Your task to perform on an android device: Show the shopping cart on costco. Add "razer blade" to the cart on costco Image 0: 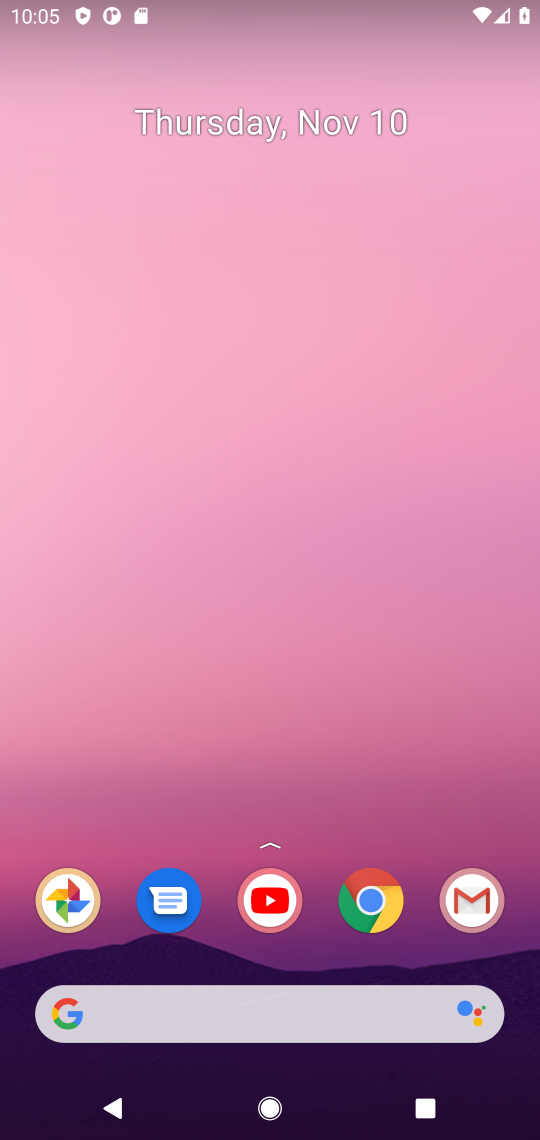
Step 0: click (369, 897)
Your task to perform on an android device: Show the shopping cart on costco. Add "razer blade" to the cart on costco Image 1: 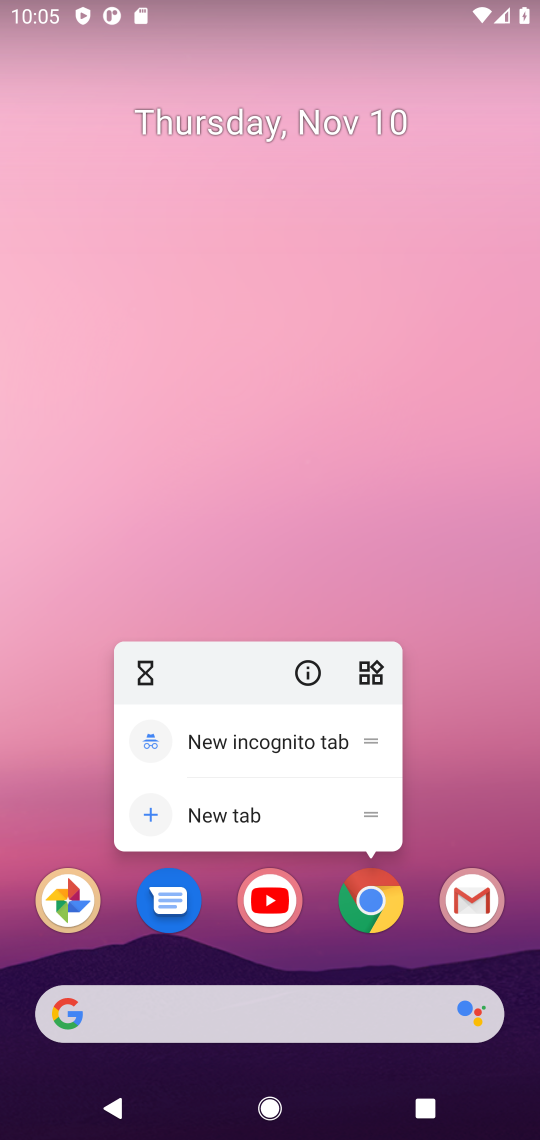
Step 1: click (369, 897)
Your task to perform on an android device: Show the shopping cart on costco. Add "razer blade" to the cart on costco Image 2: 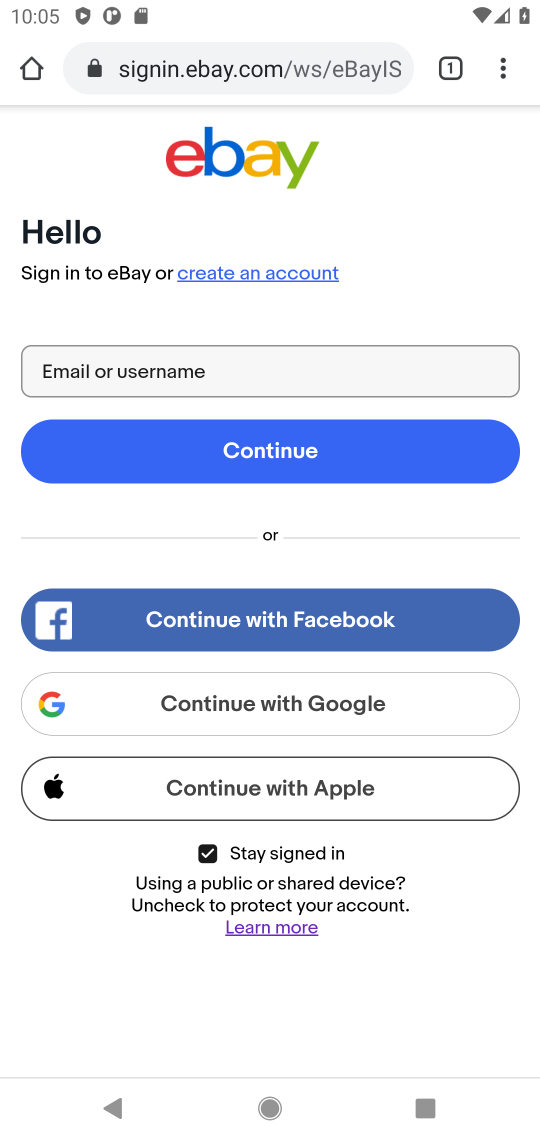
Step 2: click (289, 69)
Your task to perform on an android device: Show the shopping cart on costco. Add "razer blade" to the cart on costco Image 3: 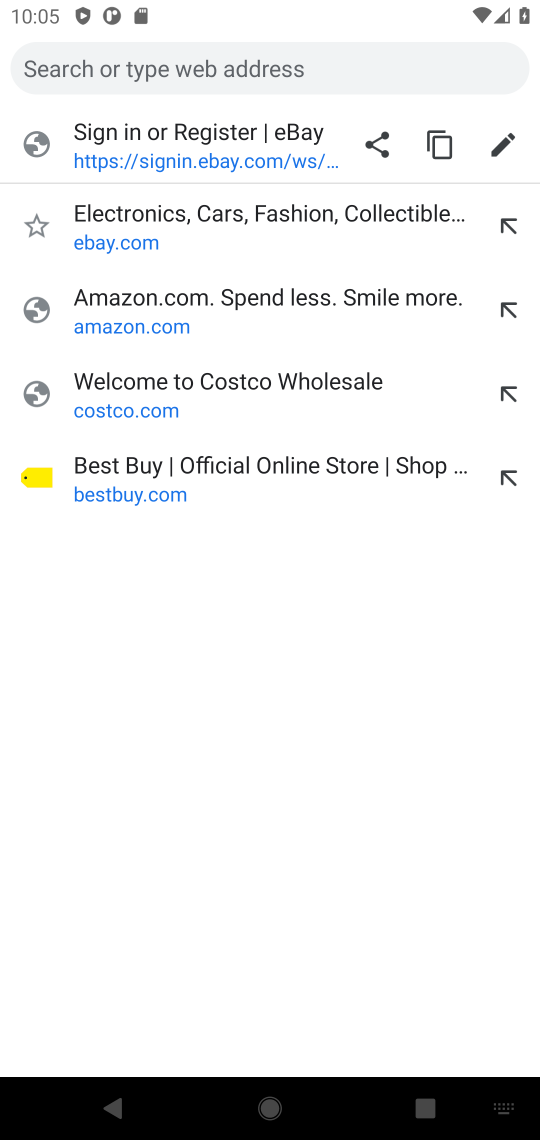
Step 3: click (116, 405)
Your task to perform on an android device: Show the shopping cart on costco. Add "razer blade" to the cart on costco Image 4: 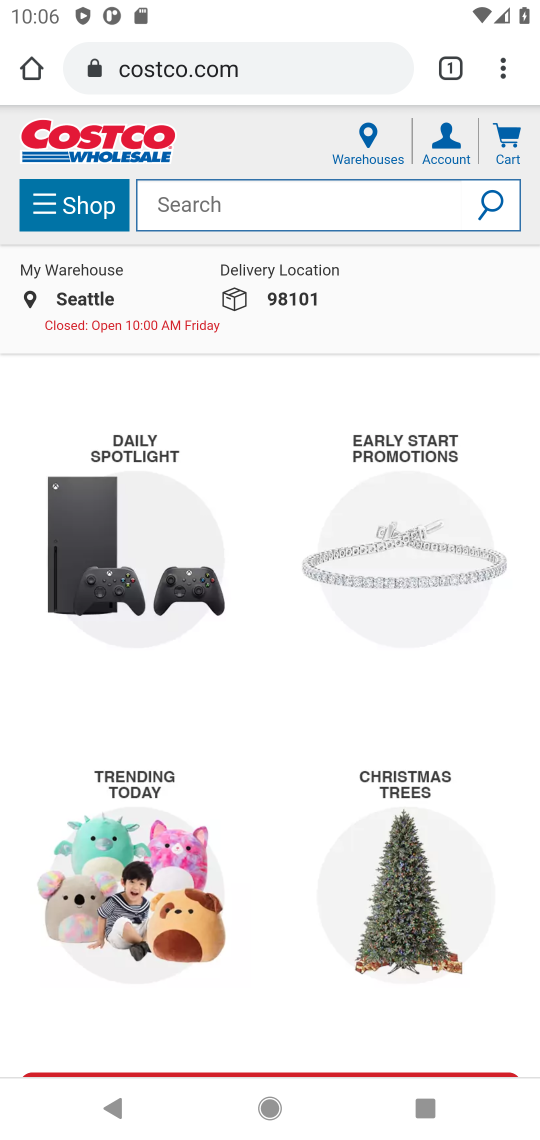
Step 4: click (281, 204)
Your task to perform on an android device: Show the shopping cart on costco. Add "razer blade" to the cart on costco Image 5: 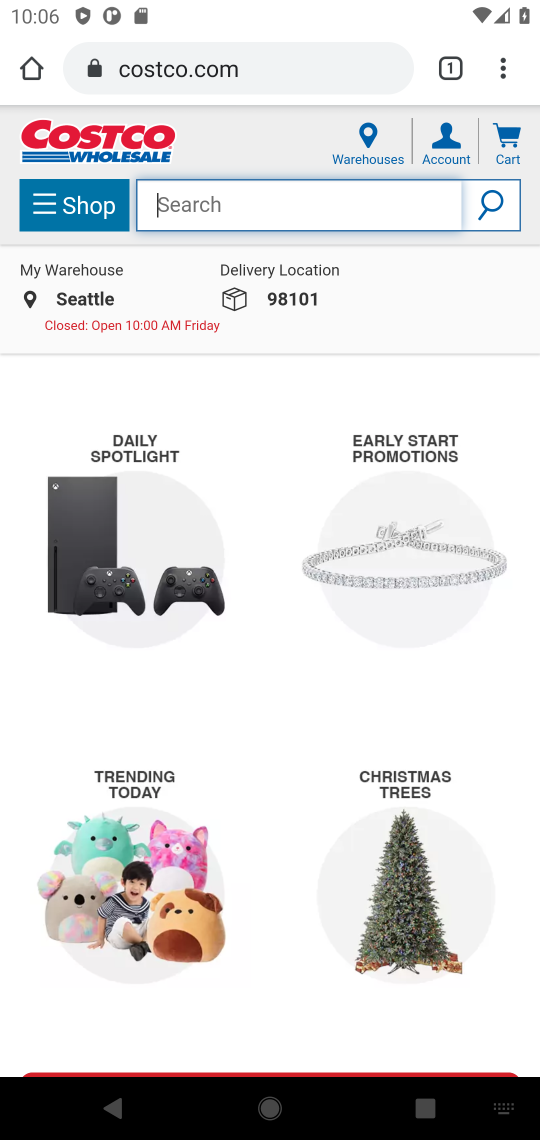
Step 5: type "razer blade"
Your task to perform on an android device: Show the shopping cart on costco. Add "razer blade" to the cart on costco Image 6: 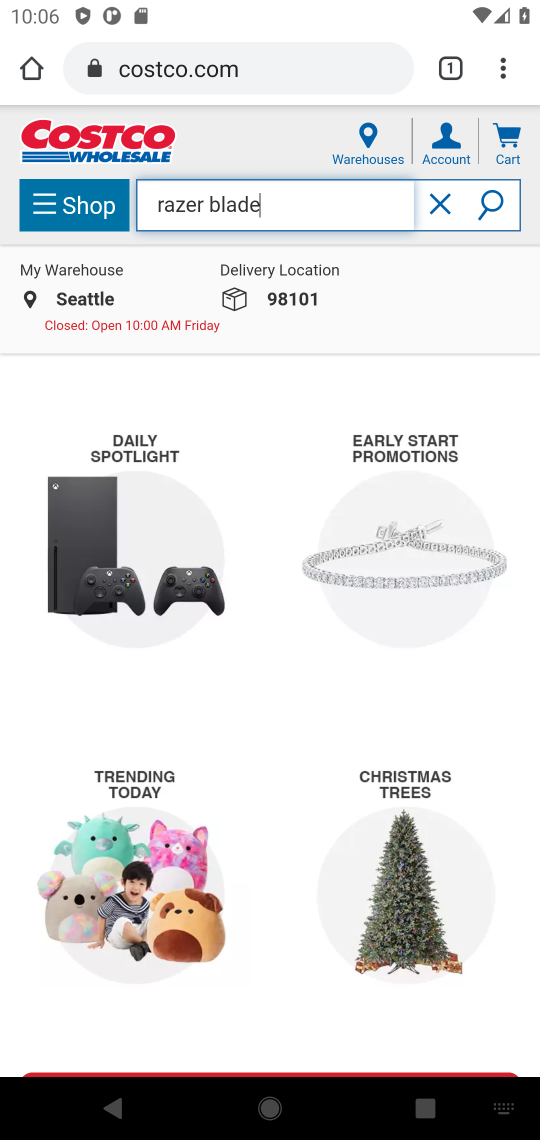
Step 6: press enter
Your task to perform on an android device: Show the shopping cart on costco. Add "razer blade" to the cart on costco Image 7: 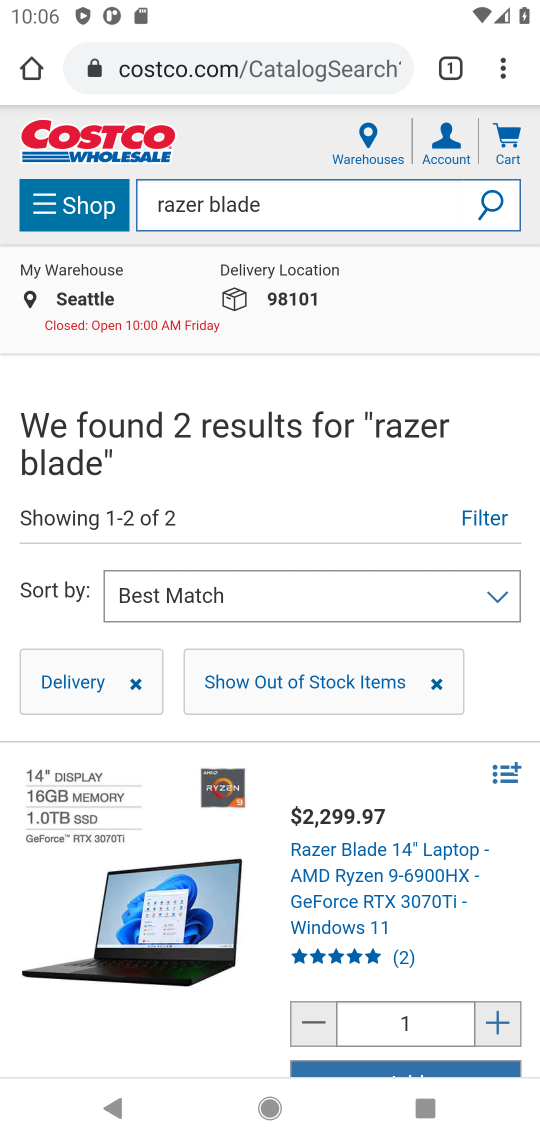
Step 7: drag from (292, 905) to (439, 576)
Your task to perform on an android device: Show the shopping cart on costco. Add "razer blade" to the cart on costco Image 8: 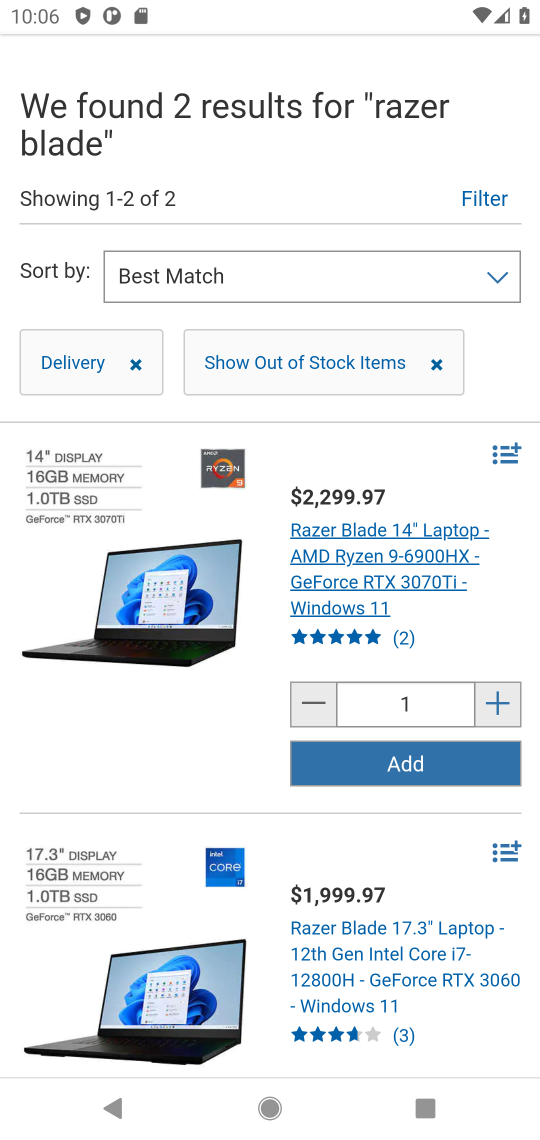
Step 8: click (413, 762)
Your task to perform on an android device: Show the shopping cart on costco. Add "razer blade" to the cart on costco Image 9: 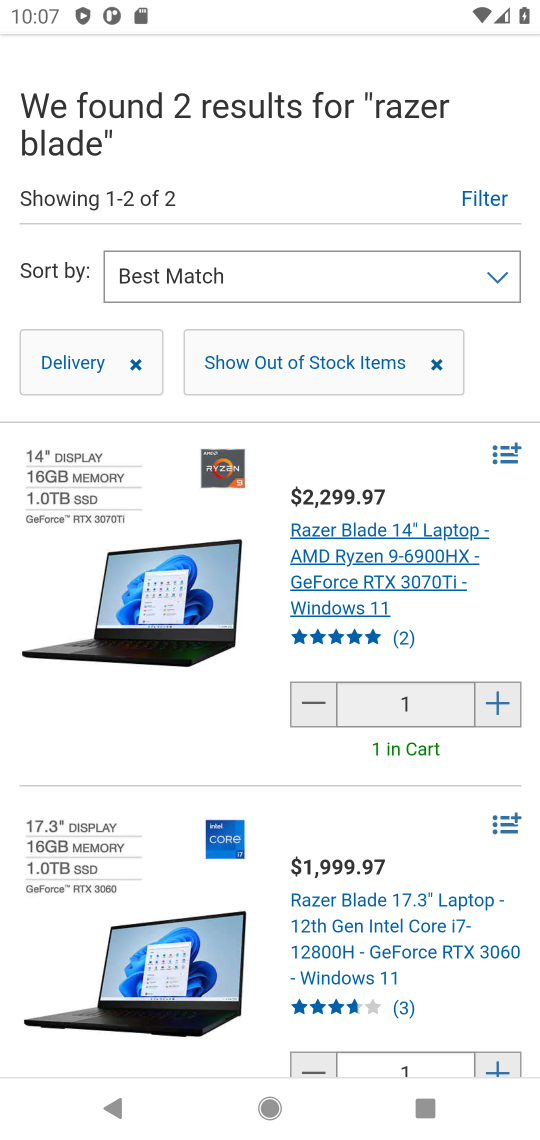
Step 9: drag from (331, 389) to (235, 969)
Your task to perform on an android device: Show the shopping cart on costco. Add "razer blade" to the cart on costco Image 10: 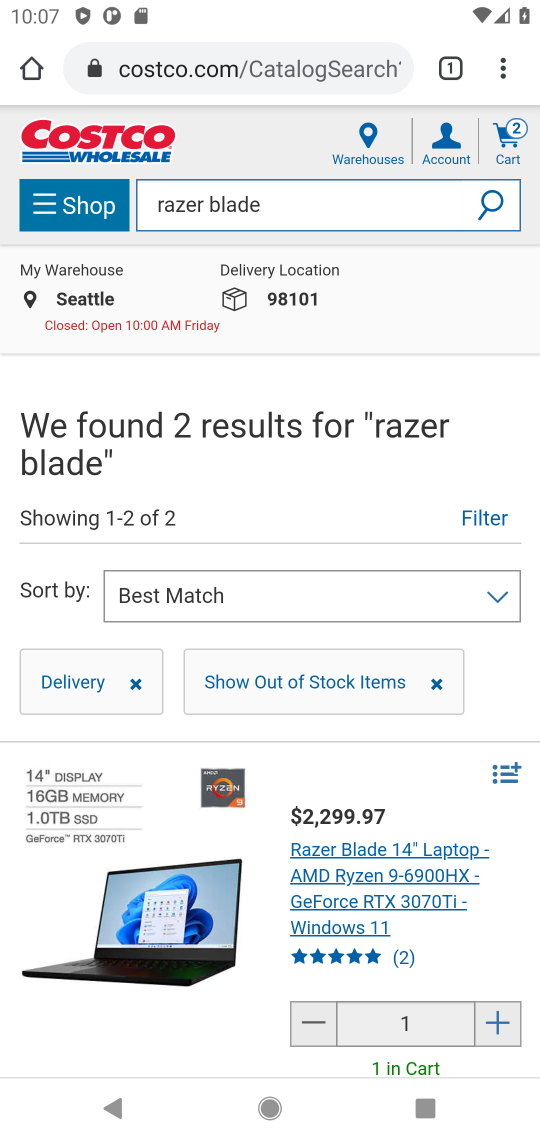
Step 10: click (501, 128)
Your task to perform on an android device: Show the shopping cart on costco. Add "razer blade" to the cart on costco Image 11: 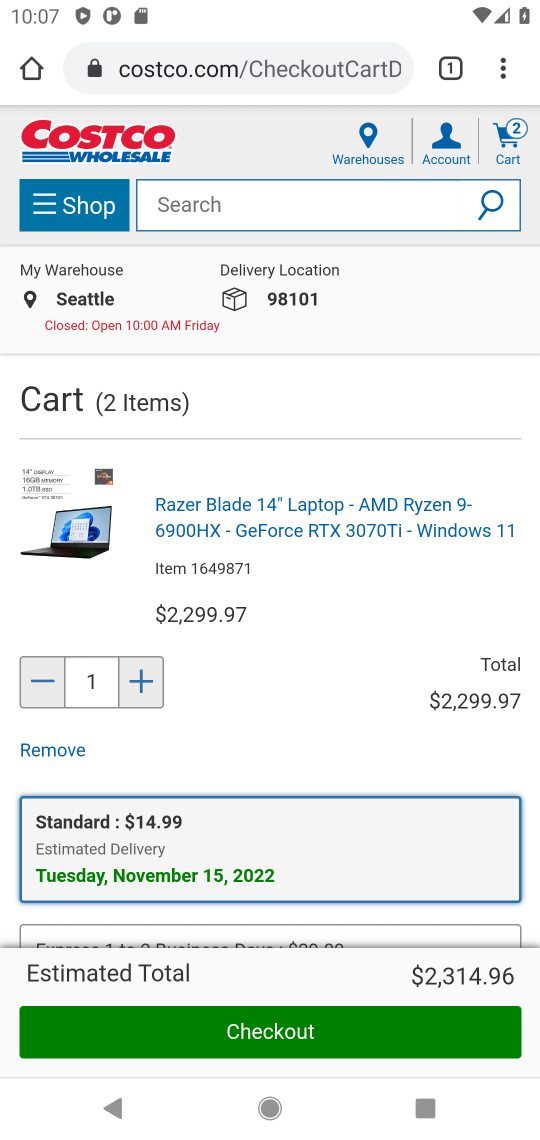
Step 11: task complete